Your task to perform on an android device: turn off airplane mode Image 0: 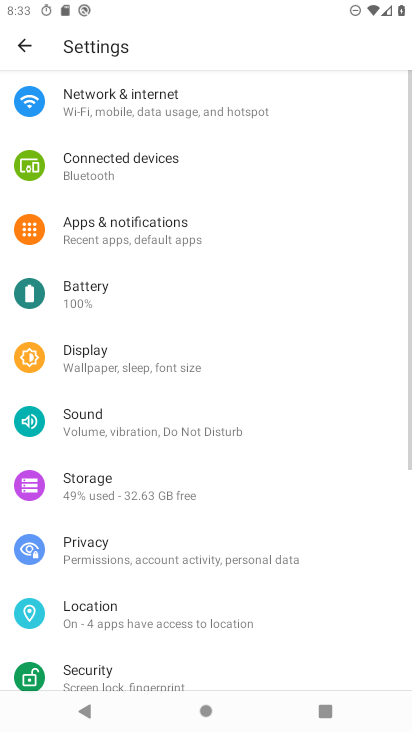
Step 0: press home button
Your task to perform on an android device: turn off airplane mode Image 1: 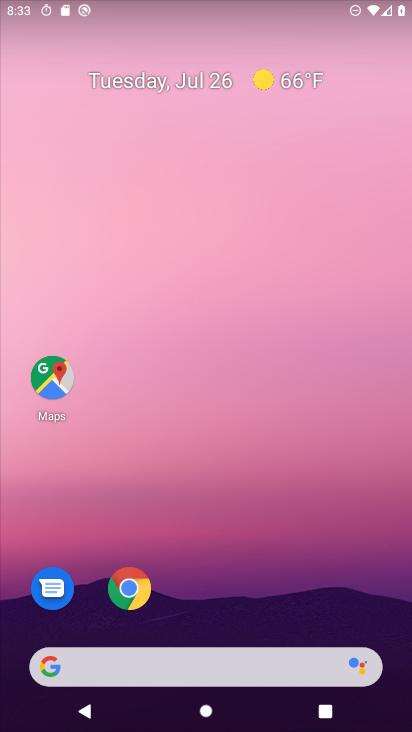
Step 1: drag from (233, 726) to (236, 297)
Your task to perform on an android device: turn off airplane mode Image 2: 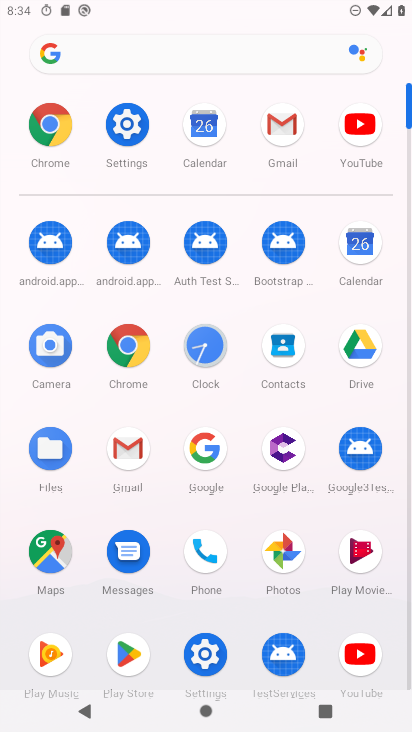
Step 2: click (130, 125)
Your task to perform on an android device: turn off airplane mode Image 3: 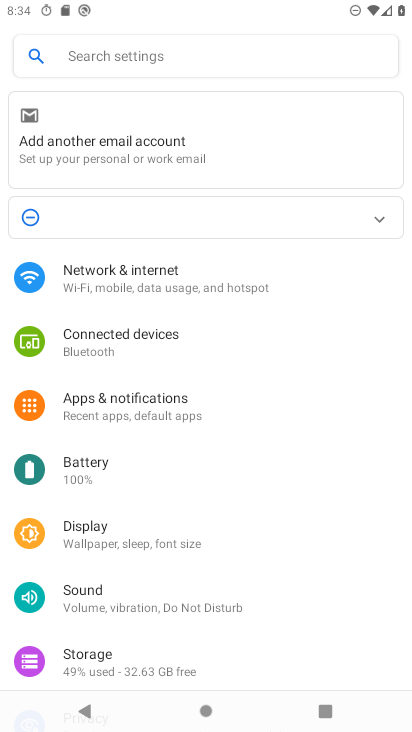
Step 3: click (92, 274)
Your task to perform on an android device: turn off airplane mode Image 4: 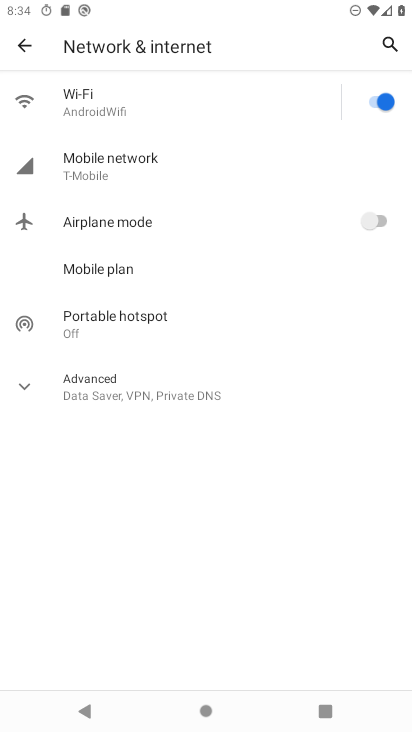
Step 4: task complete